Your task to perform on an android device: Open eBay Image 0: 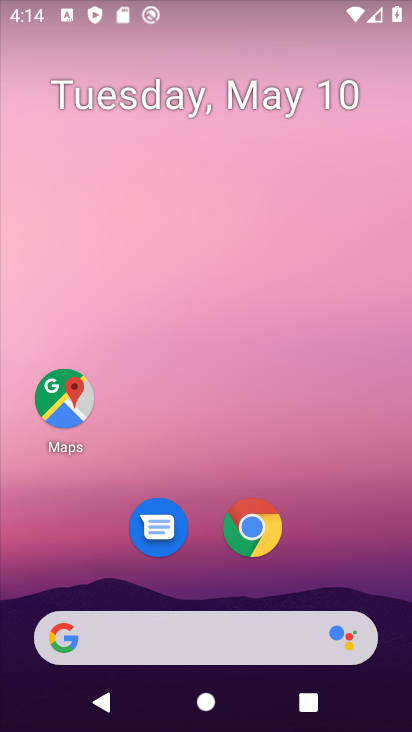
Step 0: click (211, 637)
Your task to perform on an android device: Open eBay Image 1: 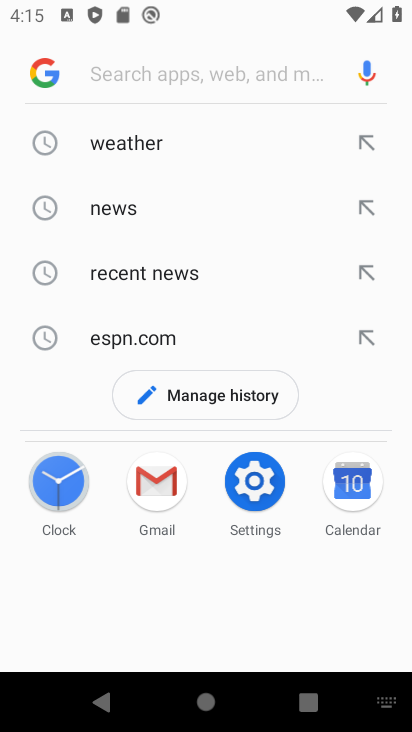
Step 1: type "ebay"
Your task to perform on an android device: Open eBay Image 2: 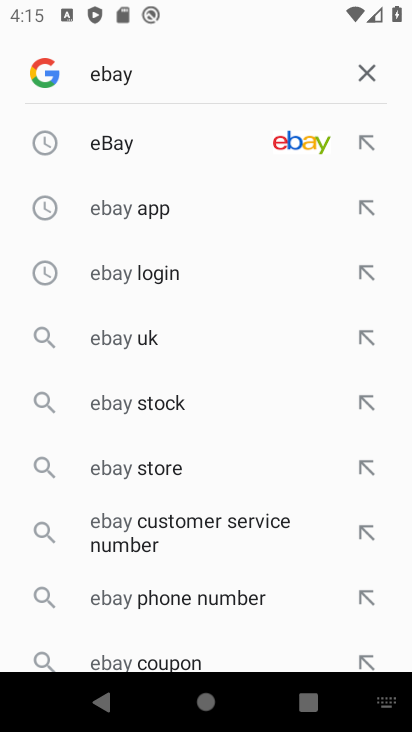
Step 2: click (111, 135)
Your task to perform on an android device: Open eBay Image 3: 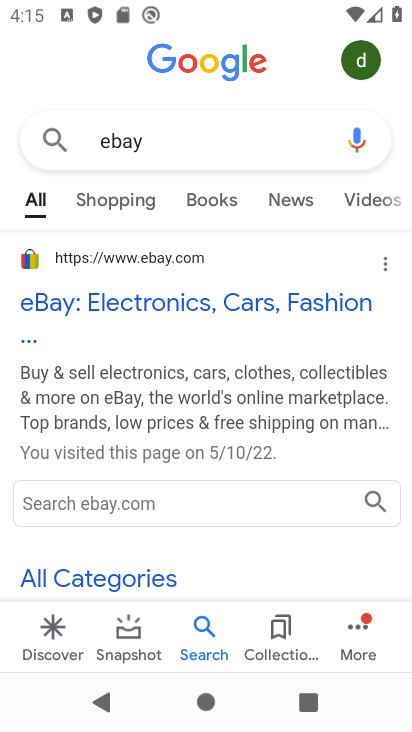
Step 3: click (241, 299)
Your task to perform on an android device: Open eBay Image 4: 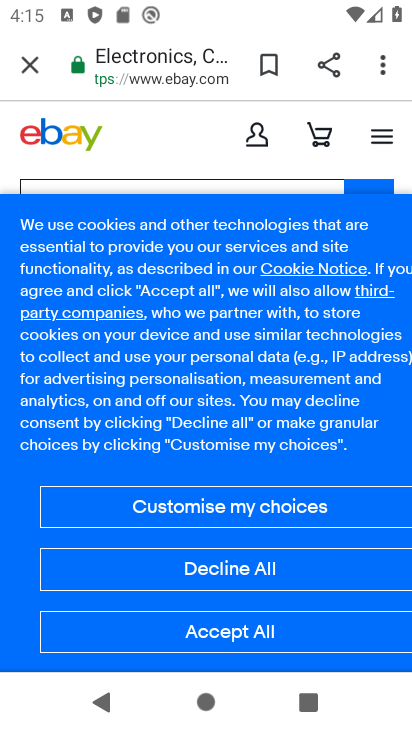
Step 4: task complete